Your task to perform on an android device: Open maps Image 0: 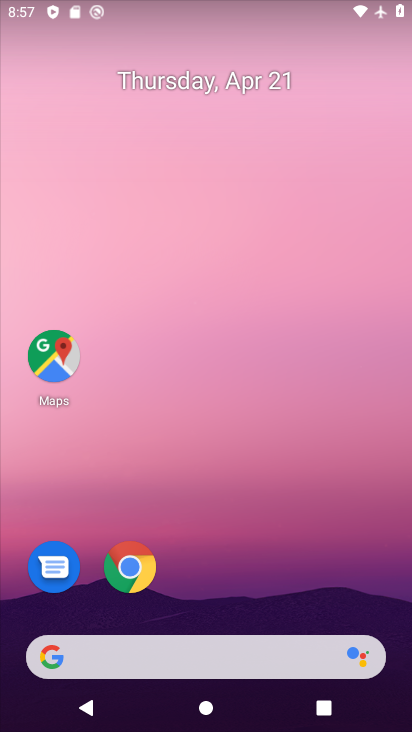
Step 0: click (55, 354)
Your task to perform on an android device: Open maps Image 1: 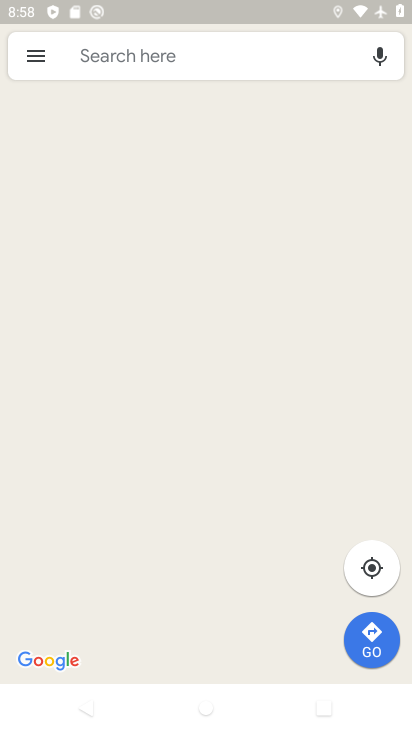
Step 1: task complete